Your task to perform on an android device: Open Chrome and go to settings Image 0: 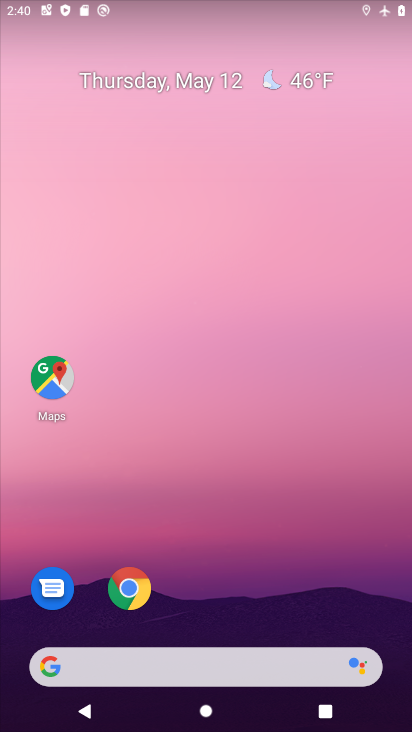
Step 0: drag from (368, 608) to (376, 47)
Your task to perform on an android device: Open Chrome and go to settings Image 1: 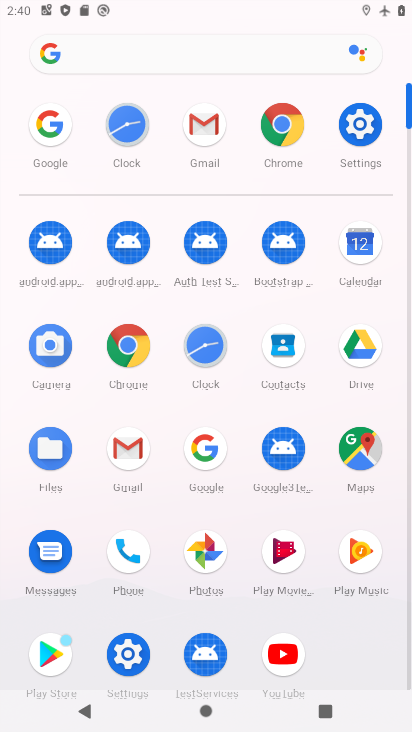
Step 1: click (130, 359)
Your task to perform on an android device: Open Chrome and go to settings Image 2: 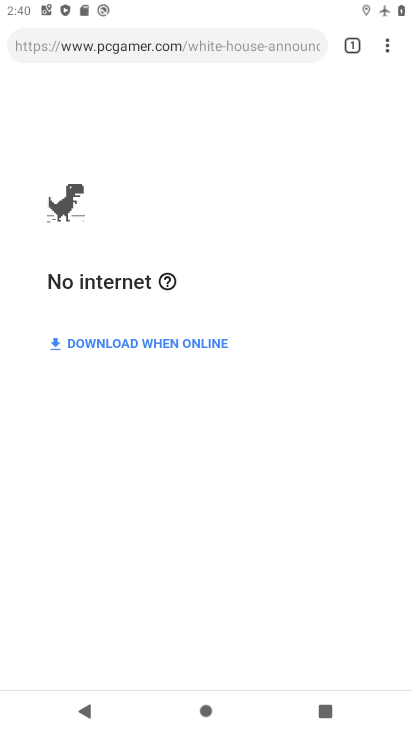
Step 2: press back button
Your task to perform on an android device: Open Chrome and go to settings Image 3: 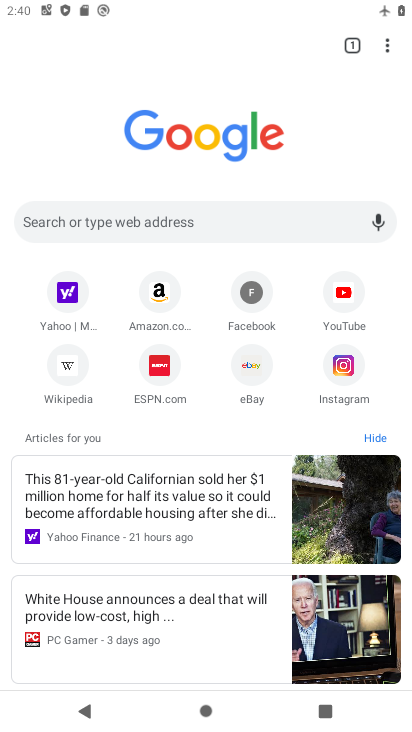
Step 3: click (386, 47)
Your task to perform on an android device: Open Chrome and go to settings Image 4: 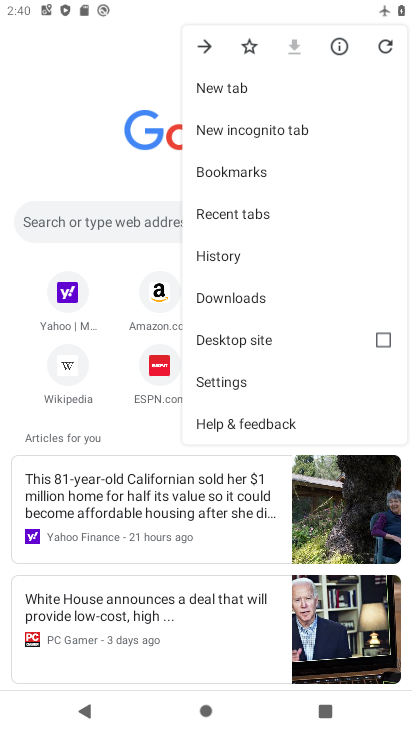
Step 4: click (267, 377)
Your task to perform on an android device: Open Chrome and go to settings Image 5: 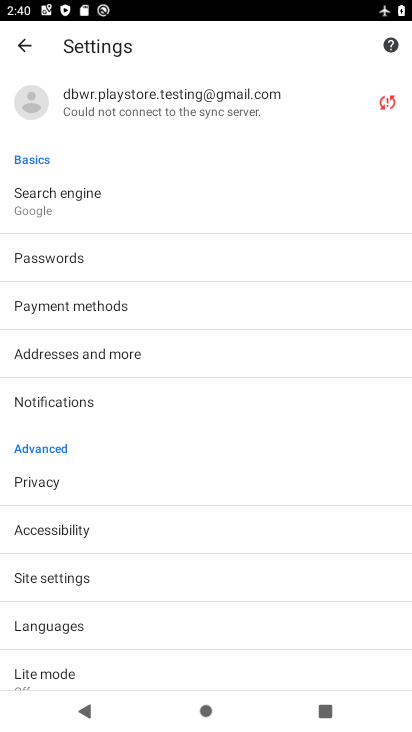
Step 5: task complete